Your task to perform on an android device: check battery use Image 0: 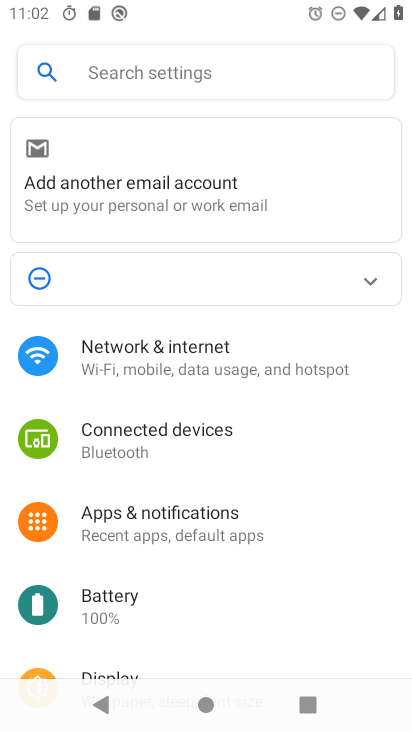
Step 0: drag from (207, 615) to (306, 301)
Your task to perform on an android device: check battery use Image 1: 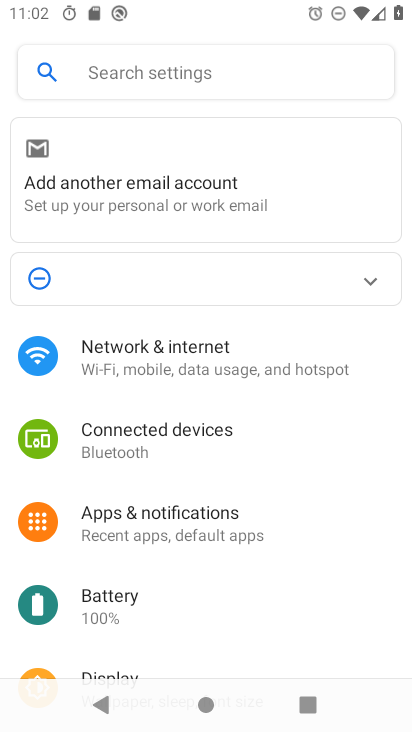
Step 1: click (113, 597)
Your task to perform on an android device: check battery use Image 2: 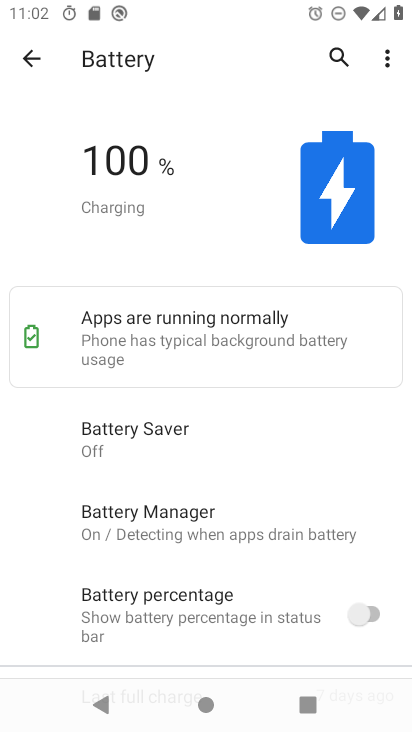
Step 2: click (394, 57)
Your task to perform on an android device: check battery use Image 3: 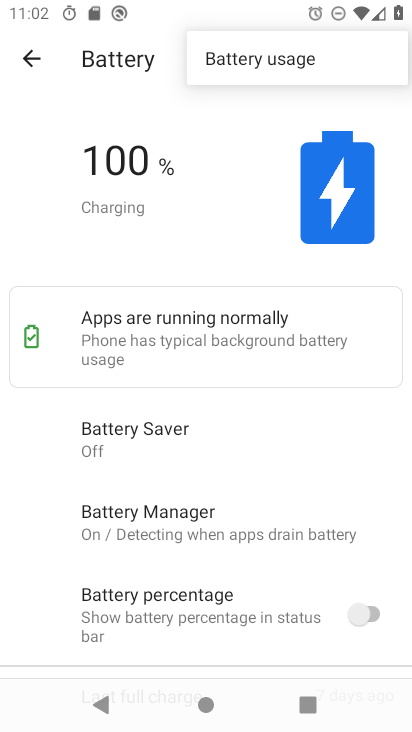
Step 3: click (280, 67)
Your task to perform on an android device: check battery use Image 4: 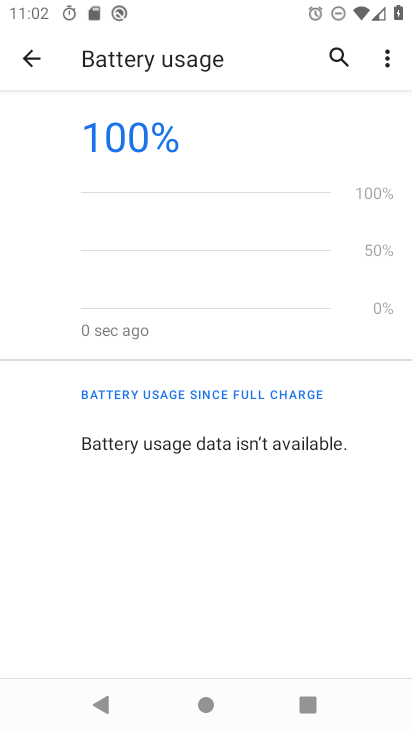
Step 4: task complete